Your task to perform on an android device: Open Google Maps and go to "Timeline" Image 0: 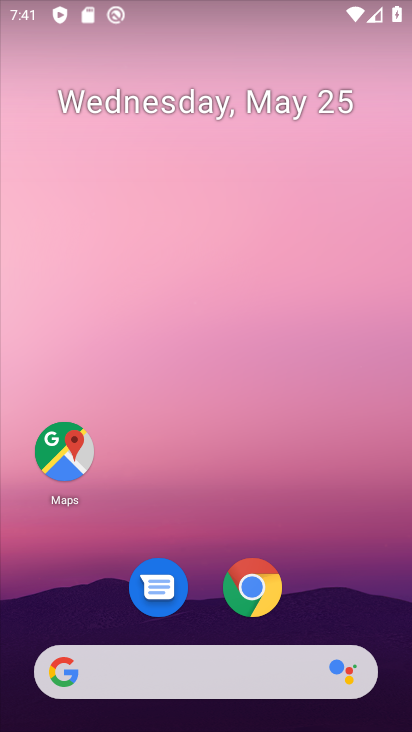
Step 0: click (70, 451)
Your task to perform on an android device: Open Google Maps and go to "Timeline" Image 1: 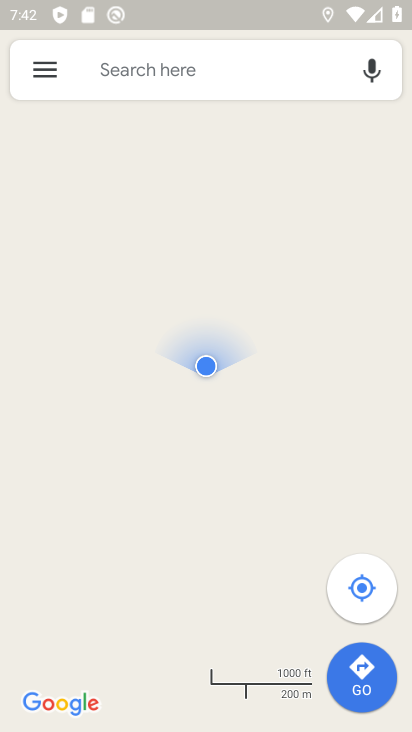
Step 1: click (54, 69)
Your task to perform on an android device: Open Google Maps and go to "Timeline" Image 2: 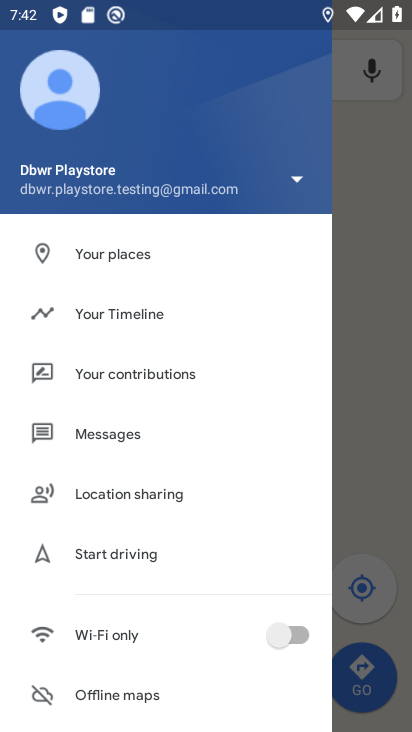
Step 2: click (128, 306)
Your task to perform on an android device: Open Google Maps and go to "Timeline" Image 3: 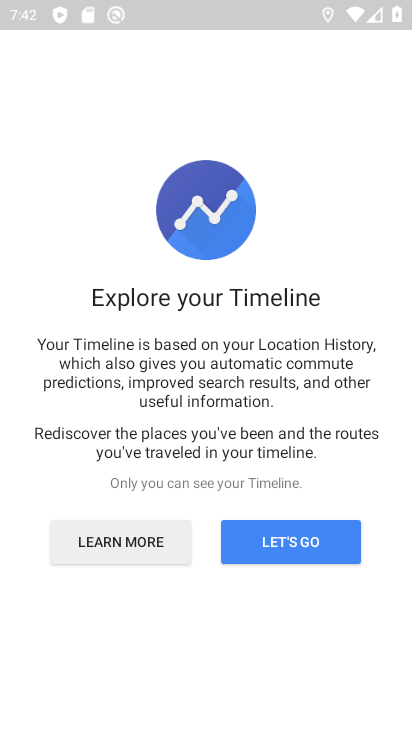
Step 3: click (302, 542)
Your task to perform on an android device: Open Google Maps and go to "Timeline" Image 4: 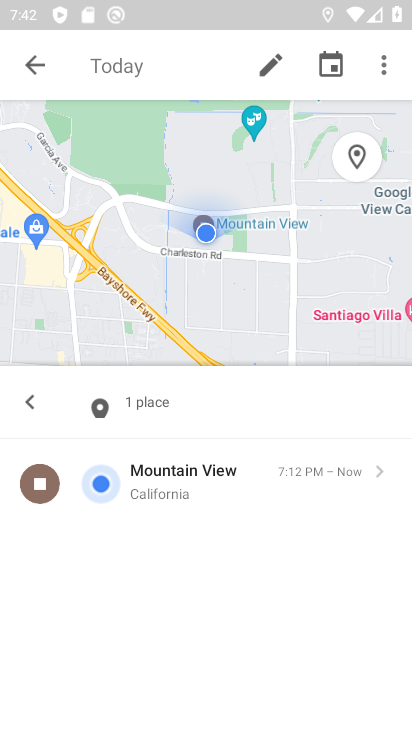
Step 4: task complete